Your task to perform on an android device: What's on my calendar tomorrow? Image 0: 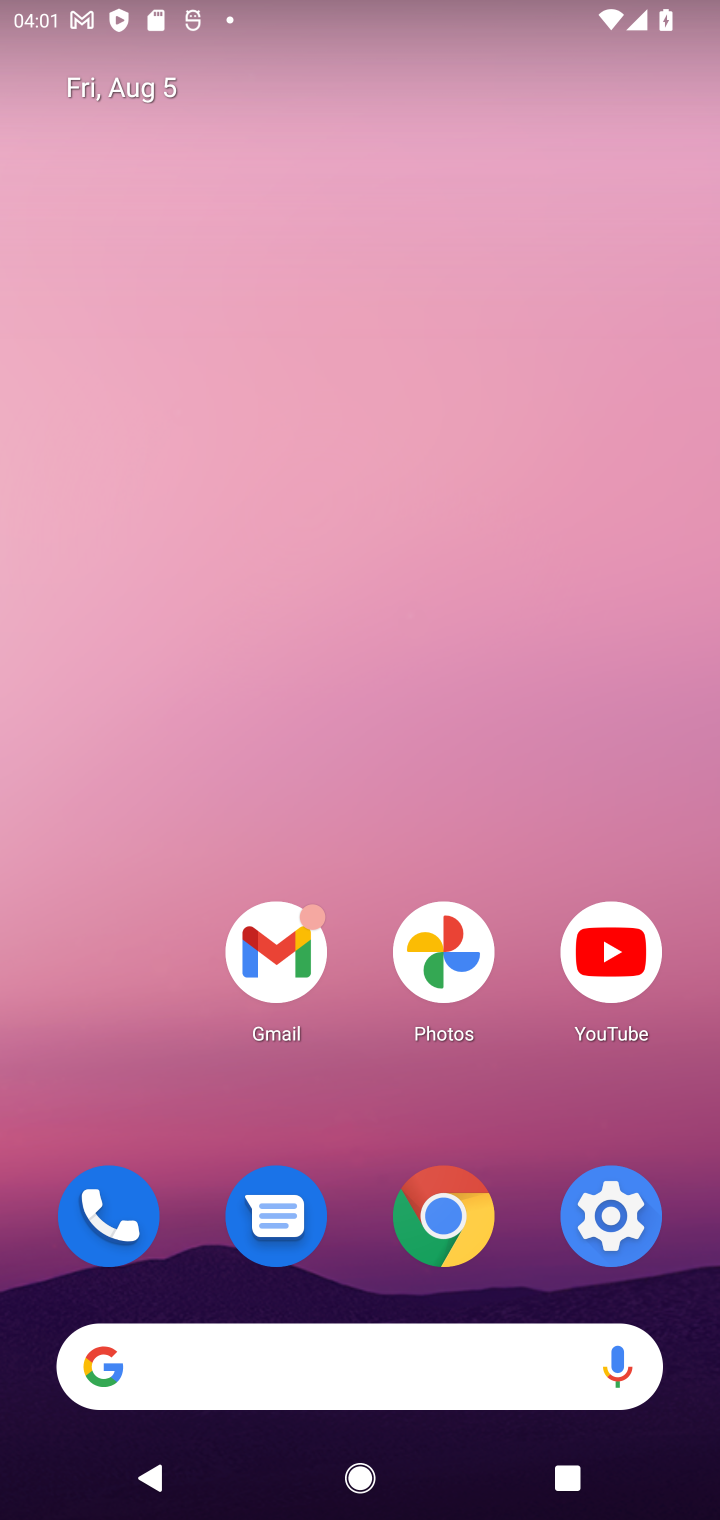
Step 0: drag from (424, 1450) to (689, 299)
Your task to perform on an android device: What's on my calendar tomorrow? Image 1: 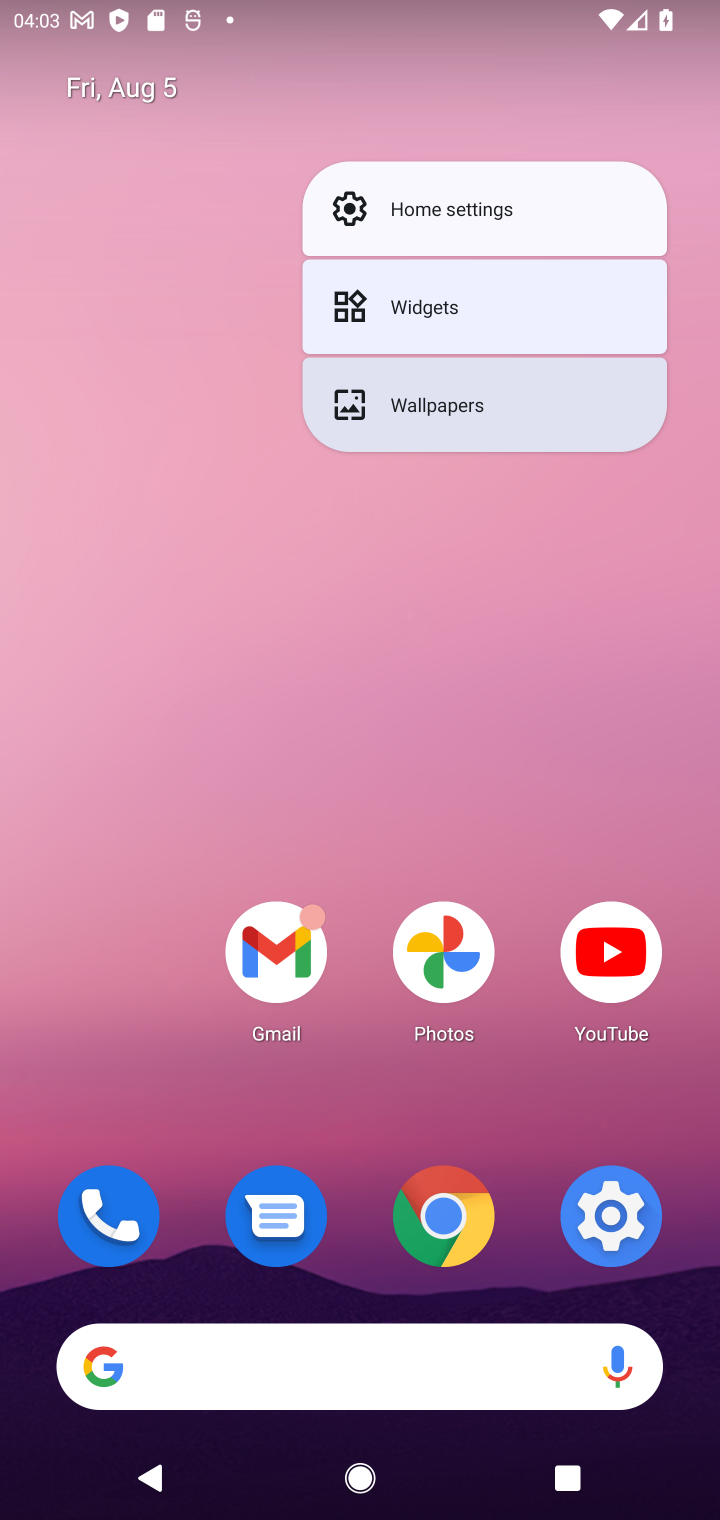
Step 1: drag from (500, 765) to (702, 79)
Your task to perform on an android device: What's on my calendar tomorrow? Image 2: 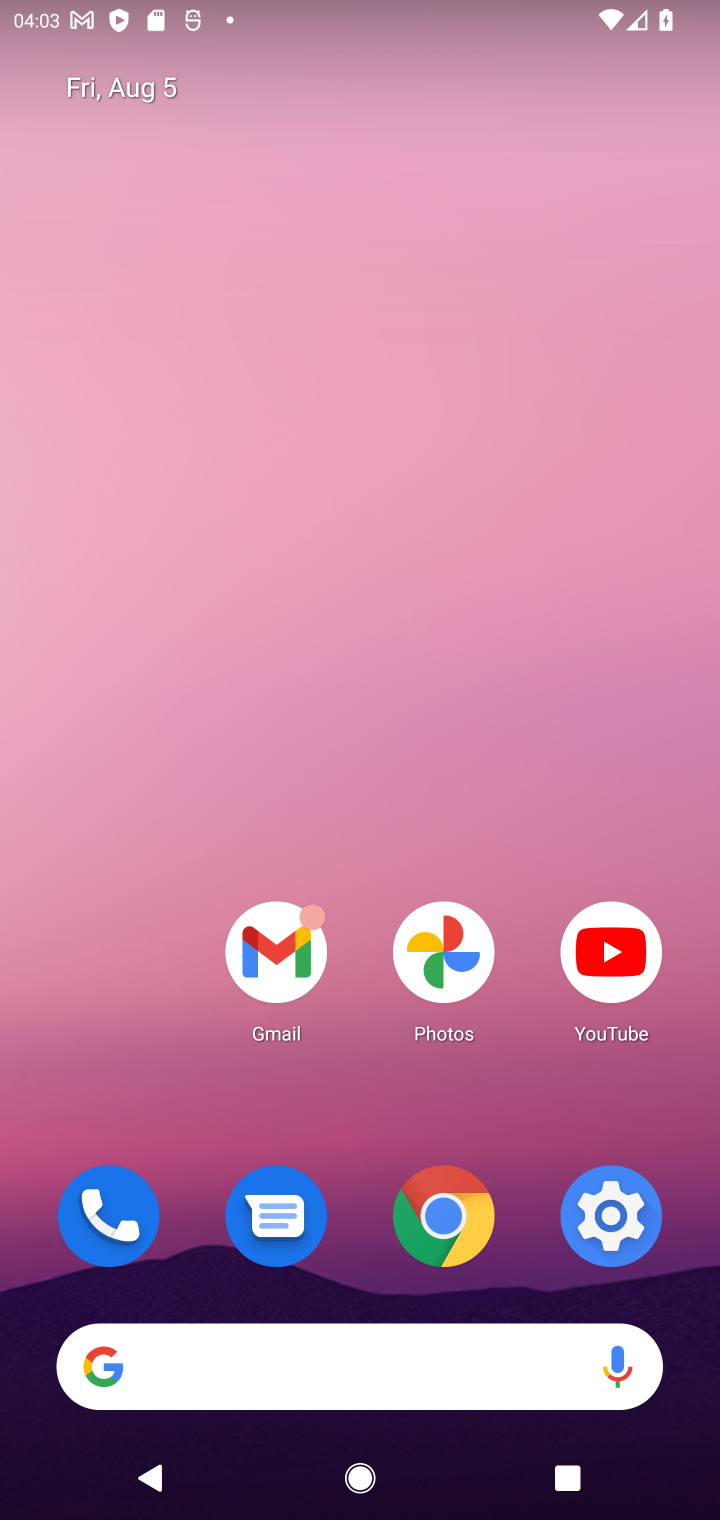
Step 2: click (702, 37)
Your task to perform on an android device: What's on my calendar tomorrow? Image 3: 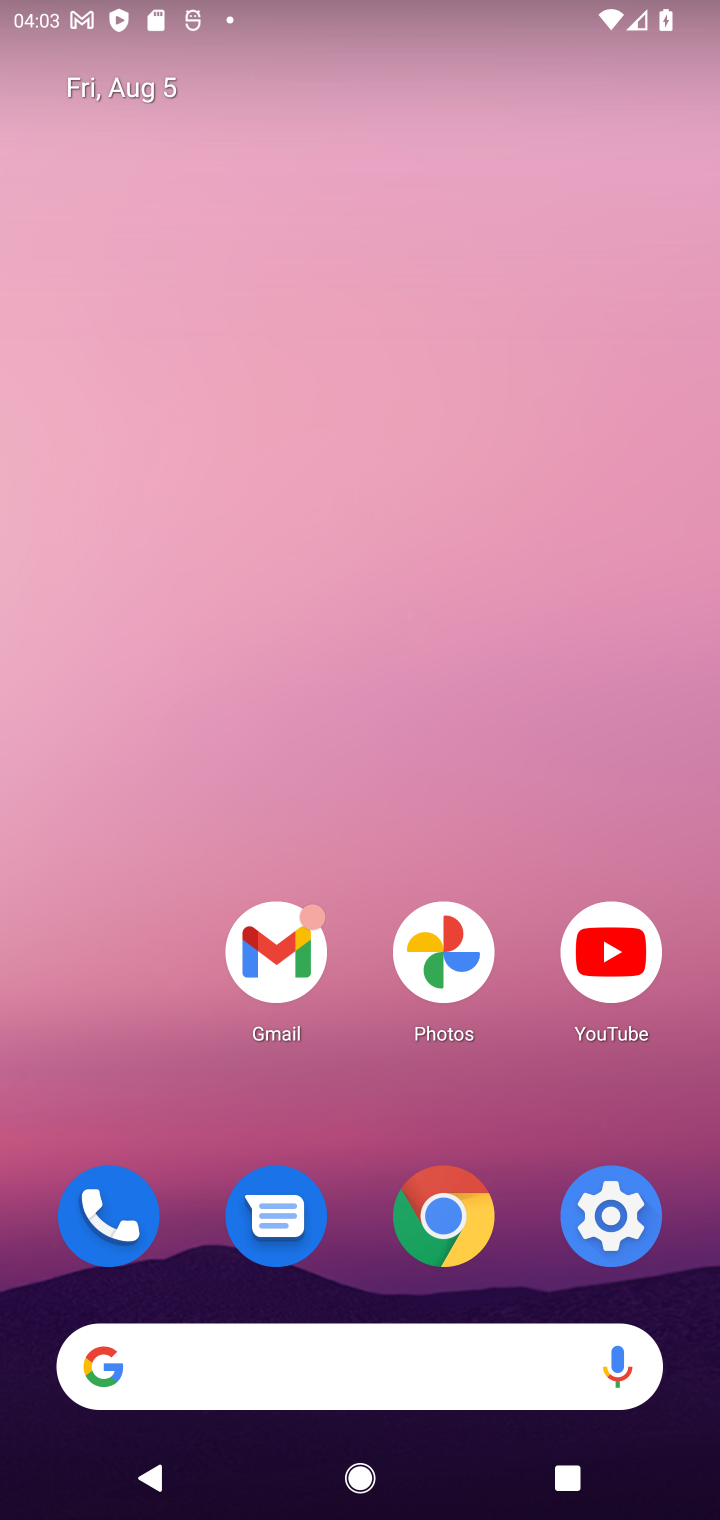
Step 3: drag from (210, 1461) to (580, 389)
Your task to perform on an android device: What's on my calendar tomorrow? Image 4: 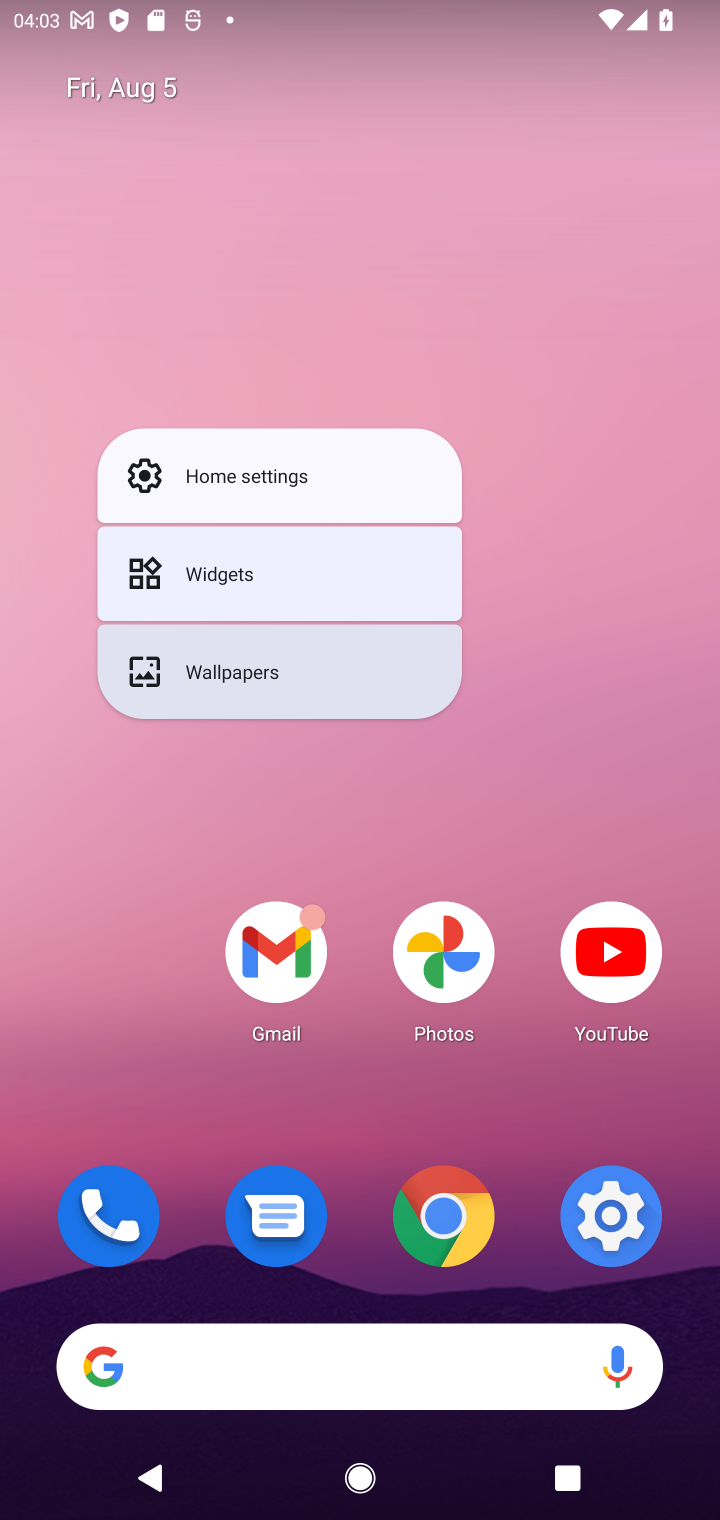
Step 4: drag from (584, 1267) to (687, 425)
Your task to perform on an android device: What's on my calendar tomorrow? Image 5: 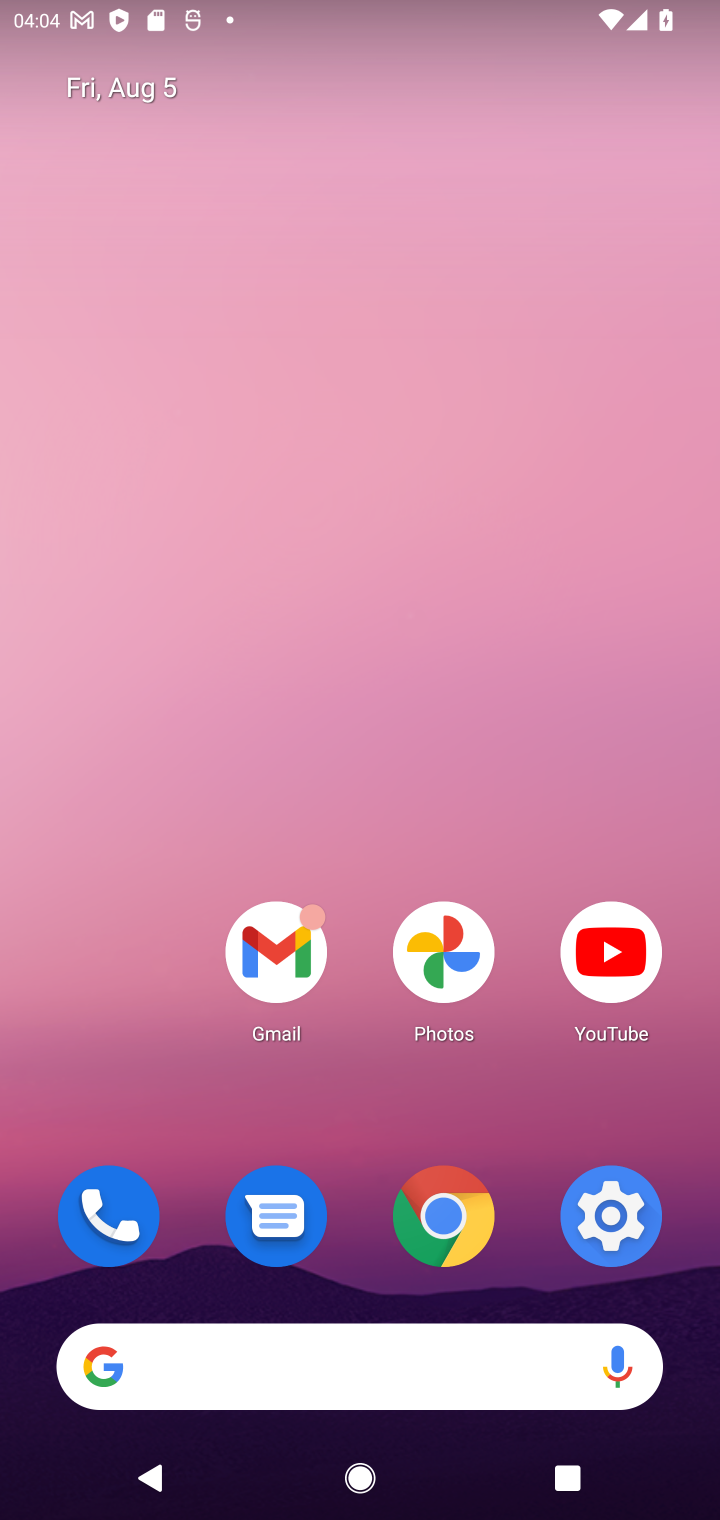
Step 5: drag from (147, 1440) to (76, 1056)
Your task to perform on an android device: What's on my calendar tomorrow? Image 6: 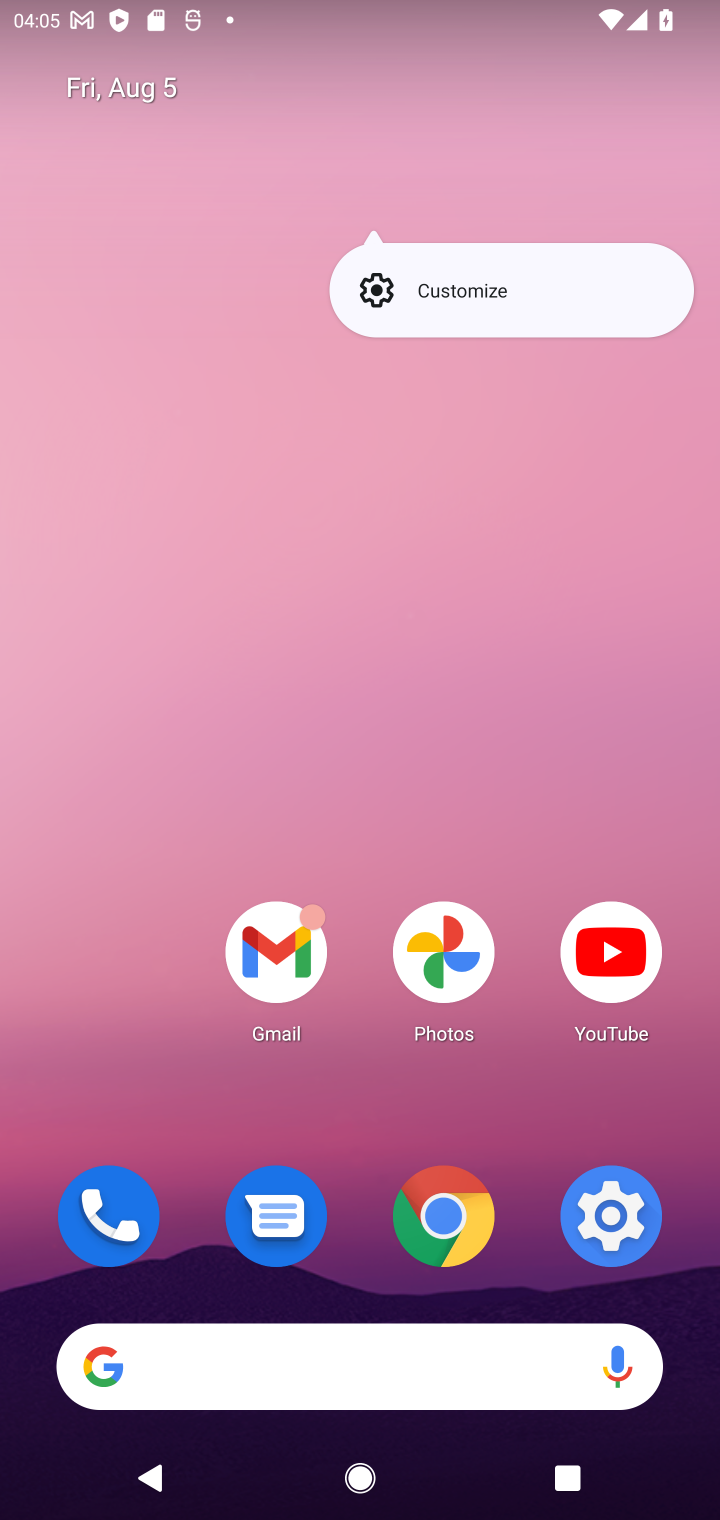
Step 6: drag from (463, 1423) to (611, 145)
Your task to perform on an android device: What's on my calendar tomorrow? Image 7: 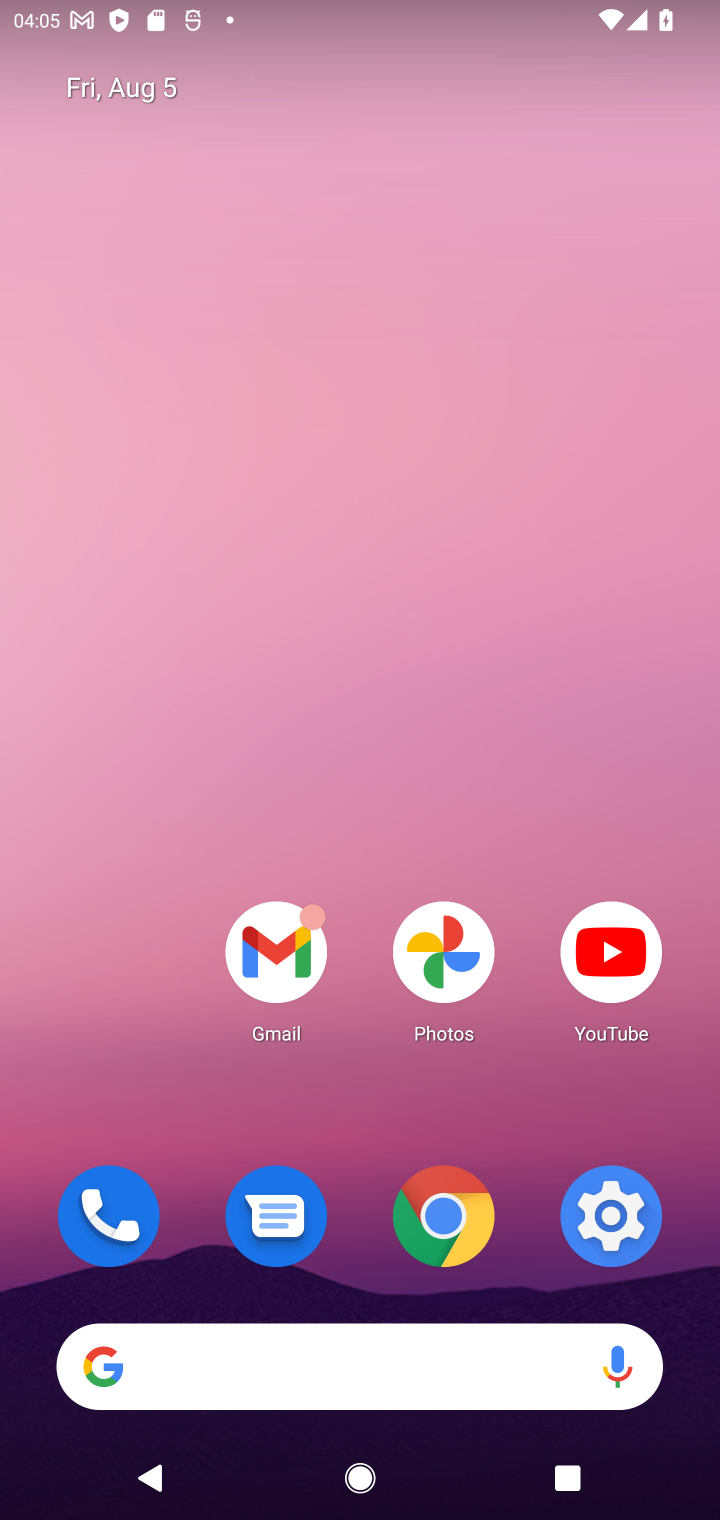
Step 7: drag from (420, 1321) to (553, 280)
Your task to perform on an android device: What's on my calendar tomorrow? Image 8: 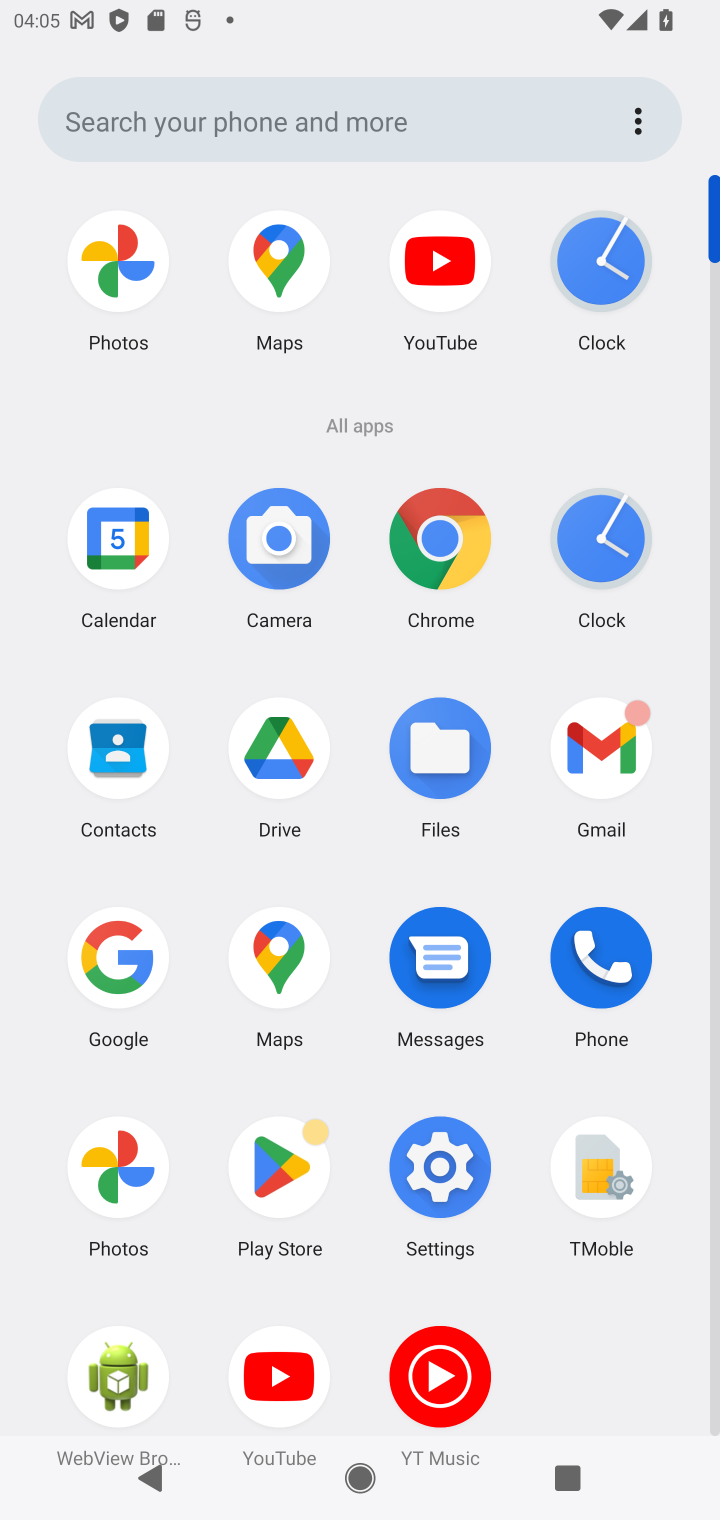
Step 8: click (118, 537)
Your task to perform on an android device: What's on my calendar tomorrow? Image 9: 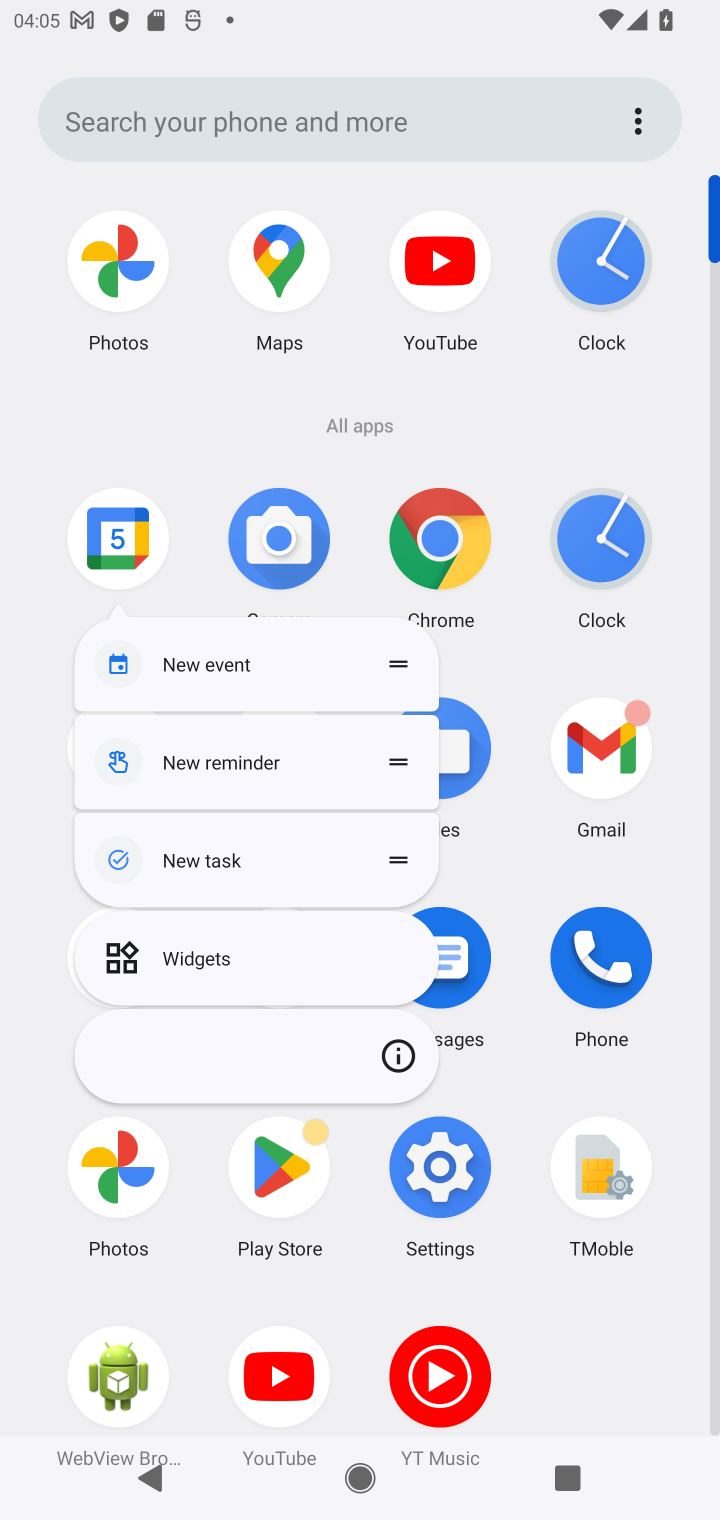
Step 9: click (118, 537)
Your task to perform on an android device: What's on my calendar tomorrow? Image 10: 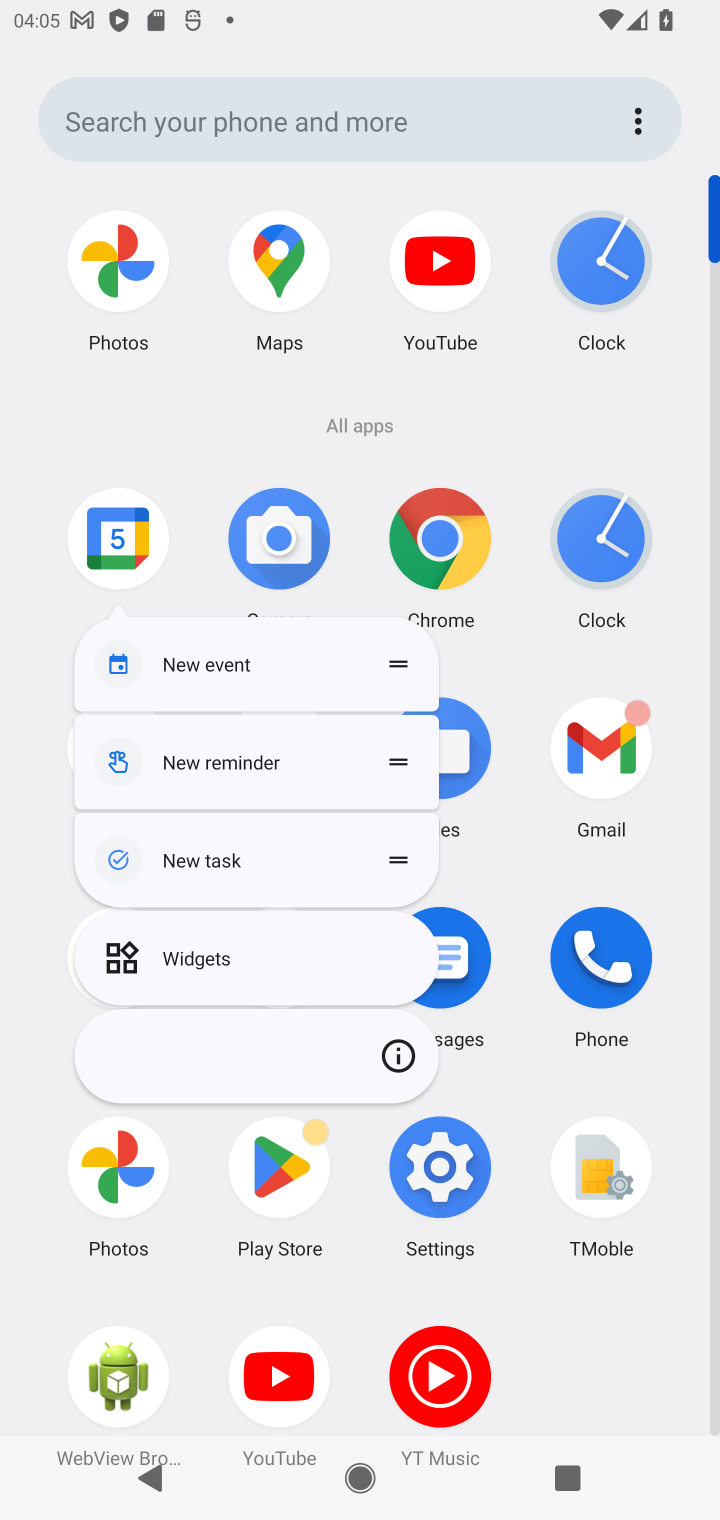
Step 10: click (90, 576)
Your task to perform on an android device: What's on my calendar tomorrow? Image 11: 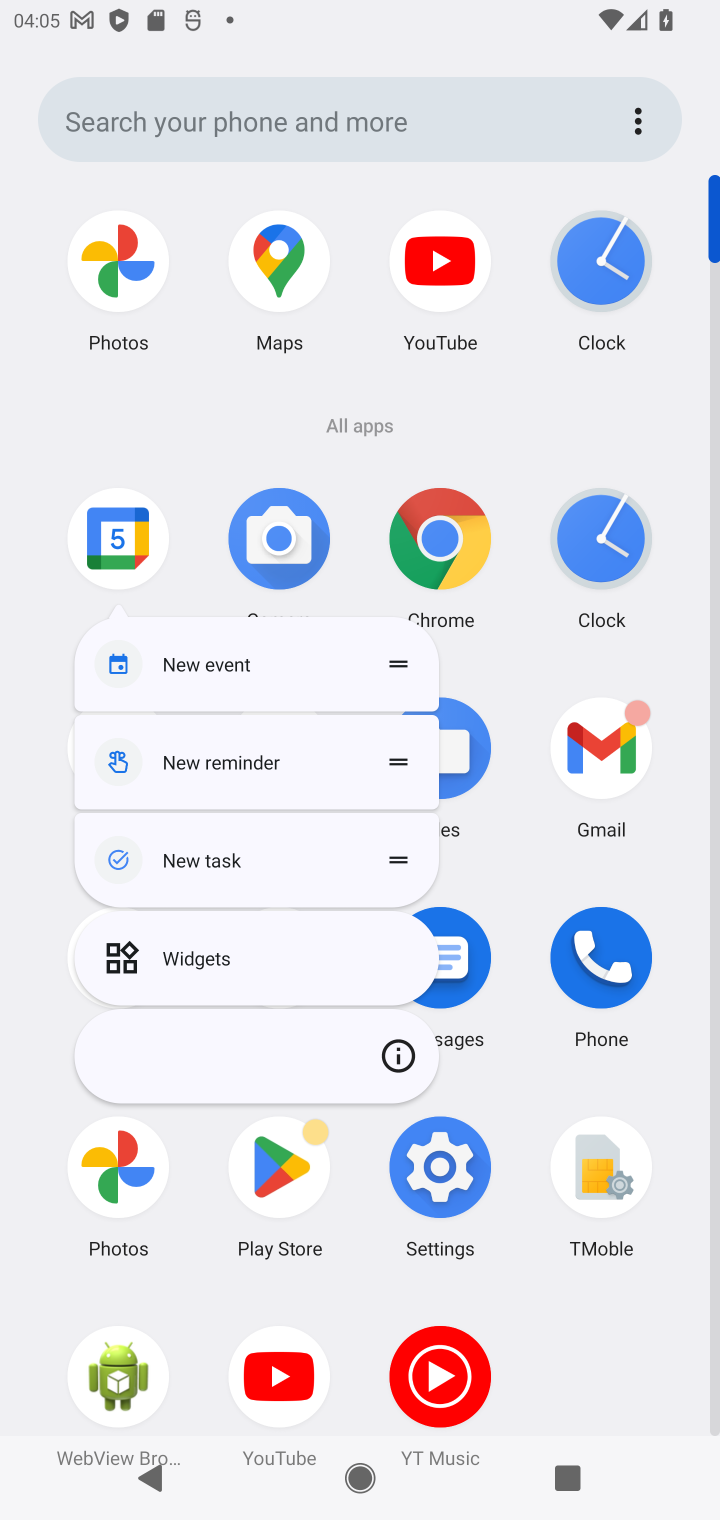
Step 11: click (98, 533)
Your task to perform on an android device: What's on my calendar tomorrow? Image 12: 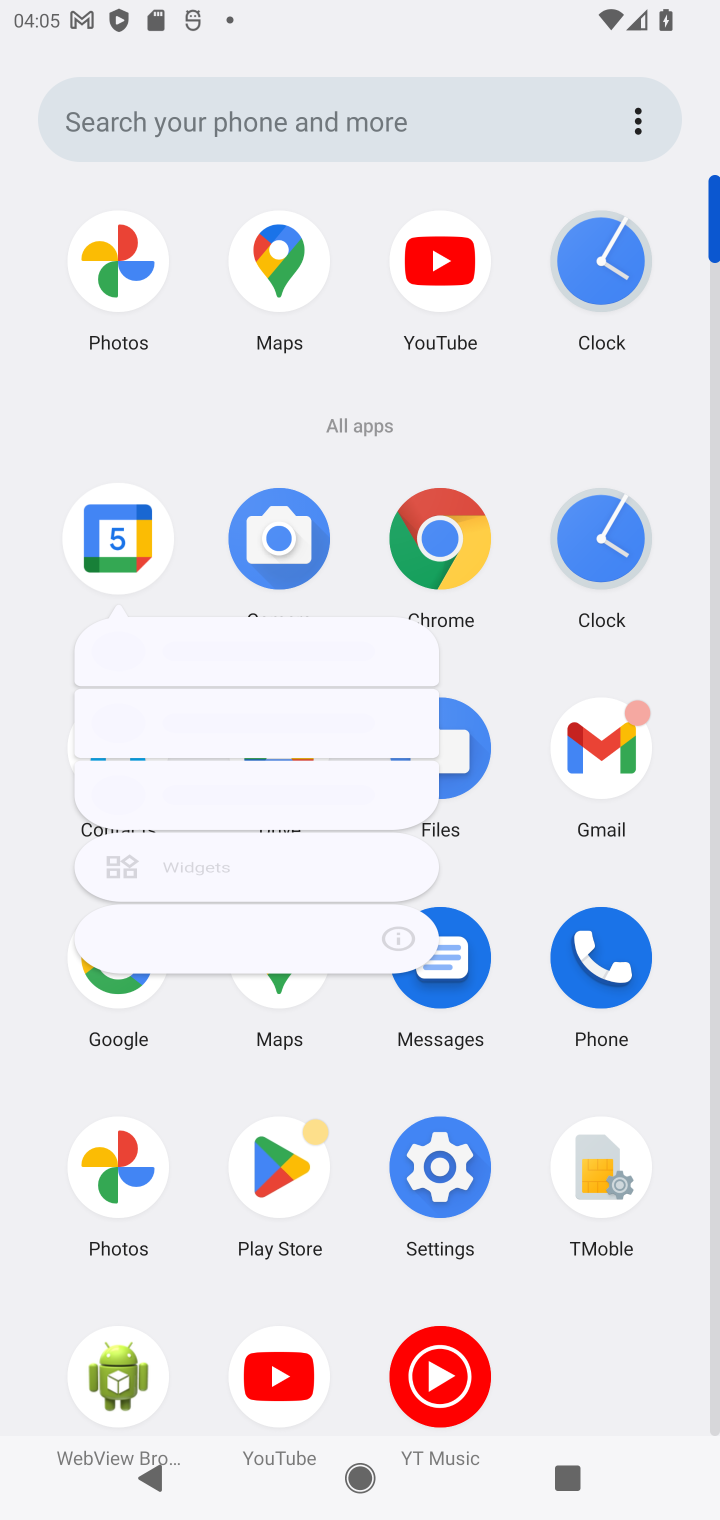
Step 12: click (117, 504)
Your task to perform on an android device: What's on my calendar tomorrow? Image 13: 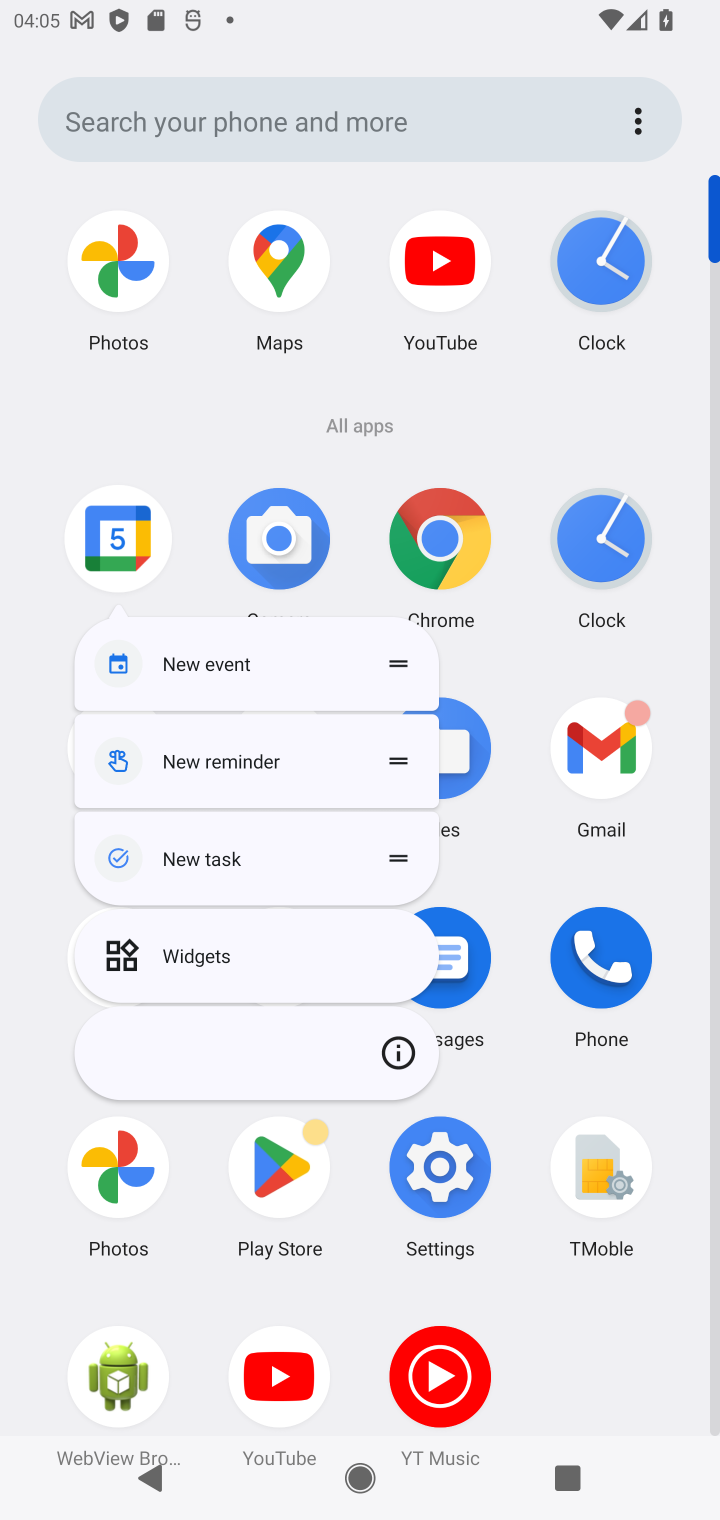
Step 13: click (55, 572)
Your task to perform on an android device: What's on my calendar tomorrow? Image 14: 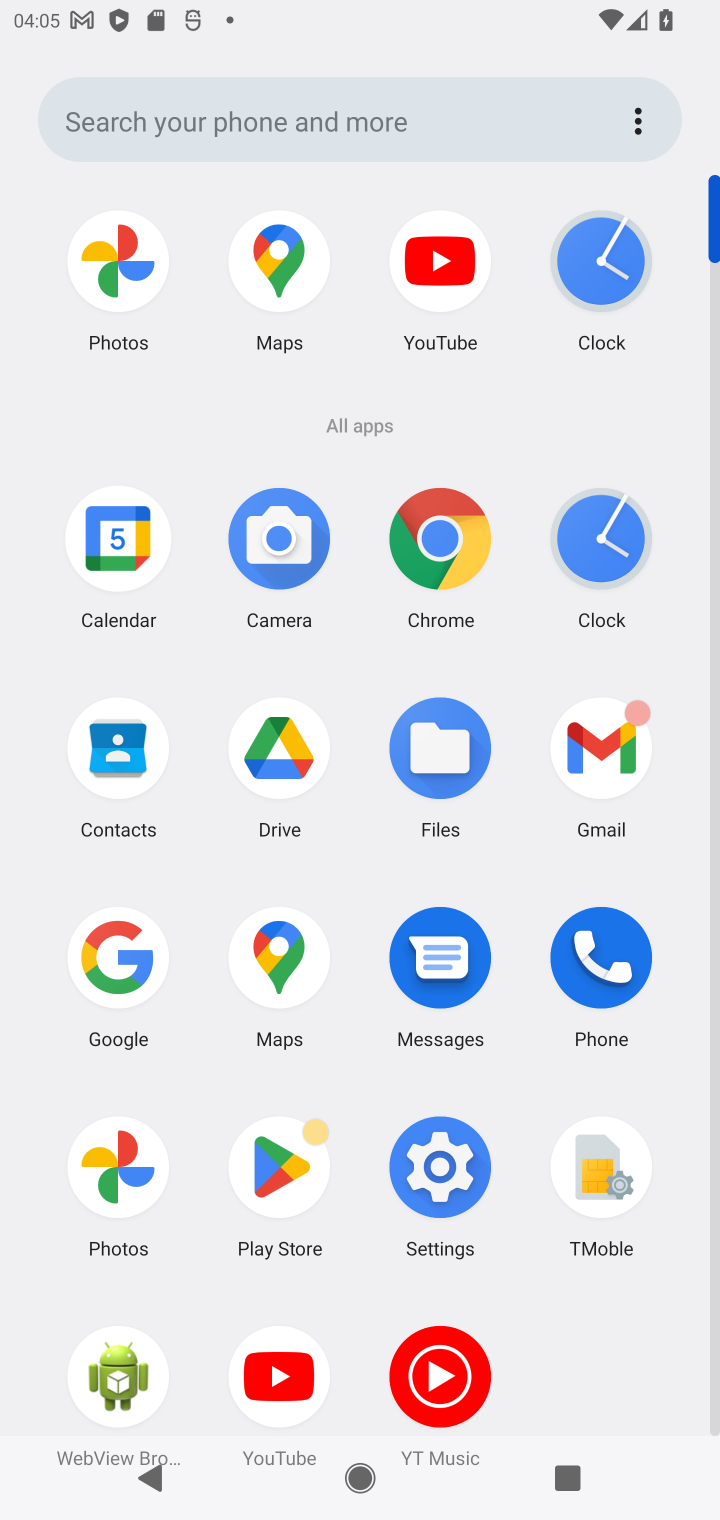
Step 14: click (152, 542)
Your task to perform on an android device: What's on my calendar tomorrow? Image 15: 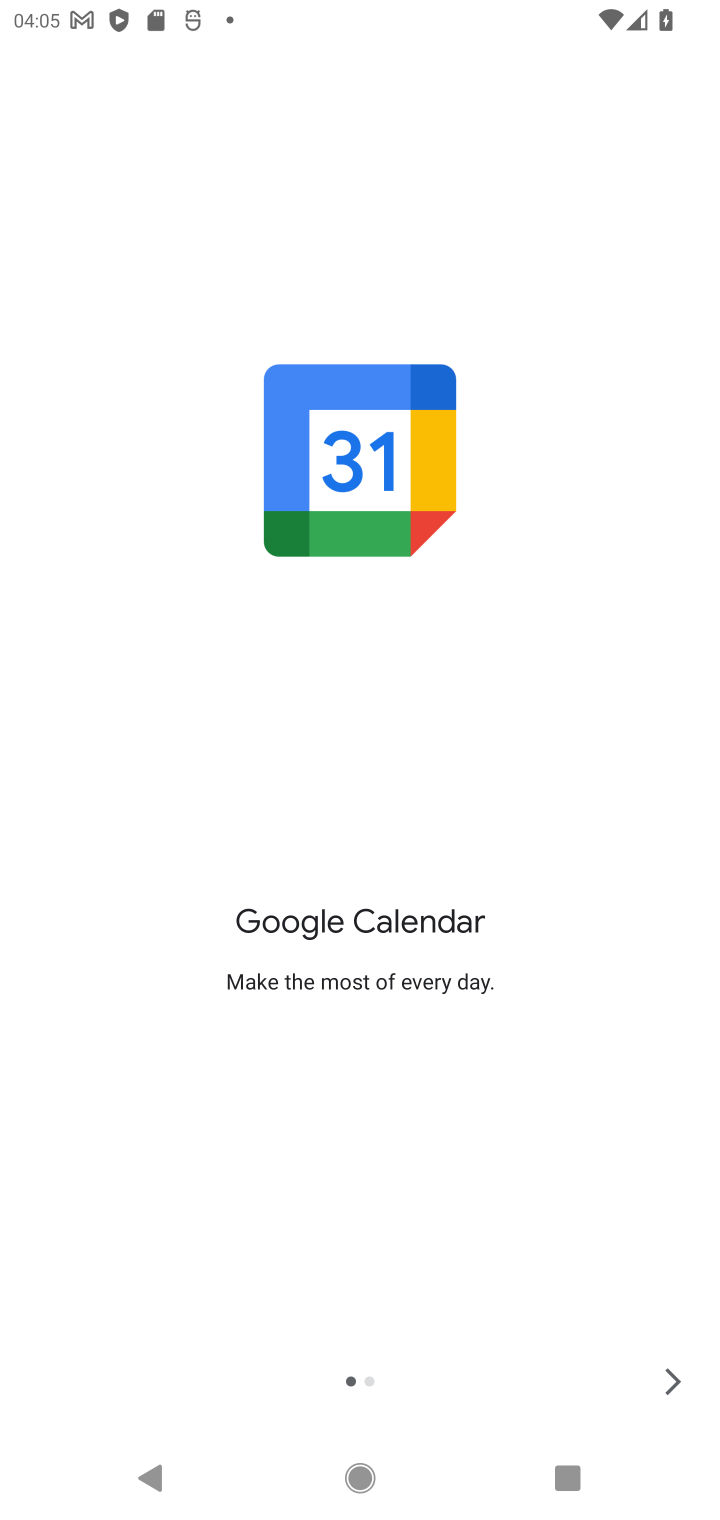
Step 15: click (653, 1376)
Your task to perform on an android device: What's on my calendar tomorrow? Image 16: 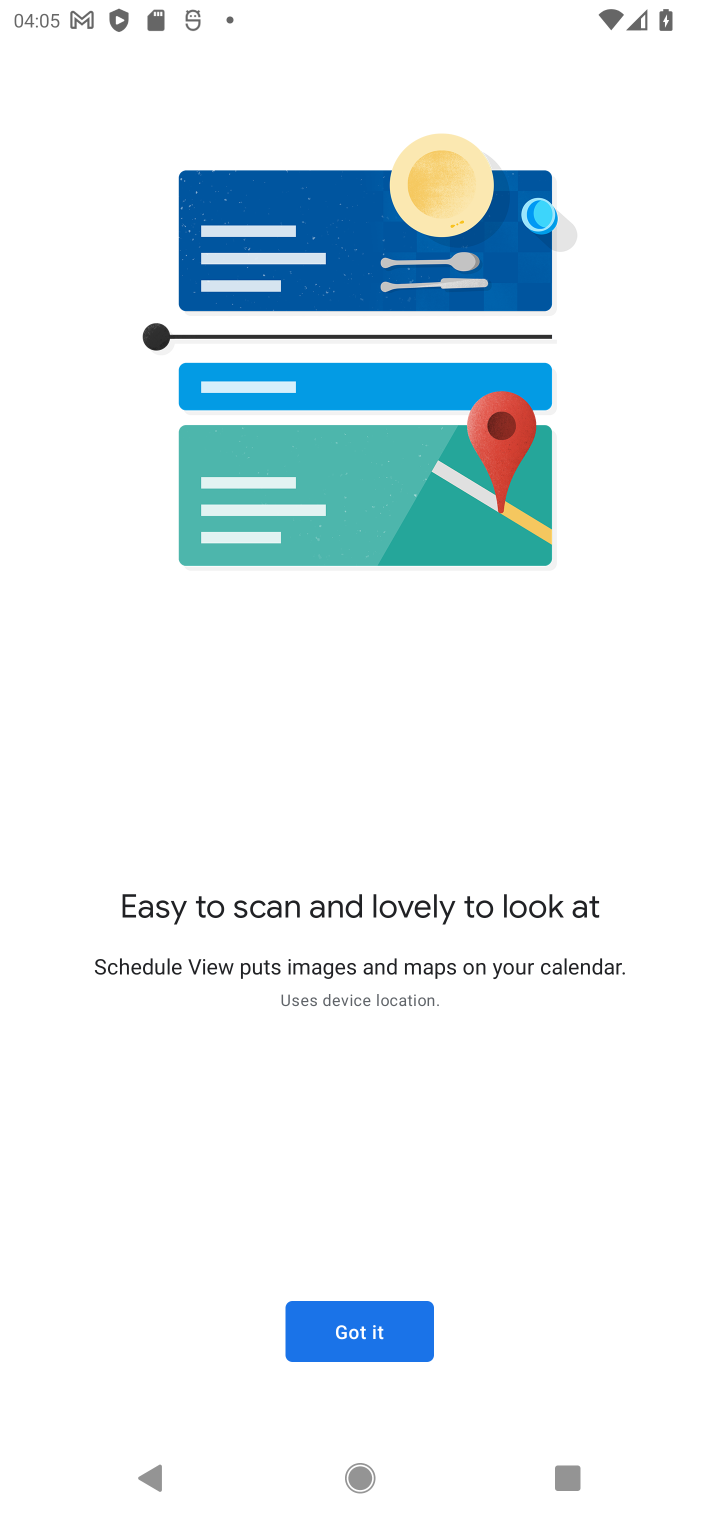
Step 16: click (653, 1365)
Your task to perform on an android device: What's on my calendar tomorrow? Image 17: 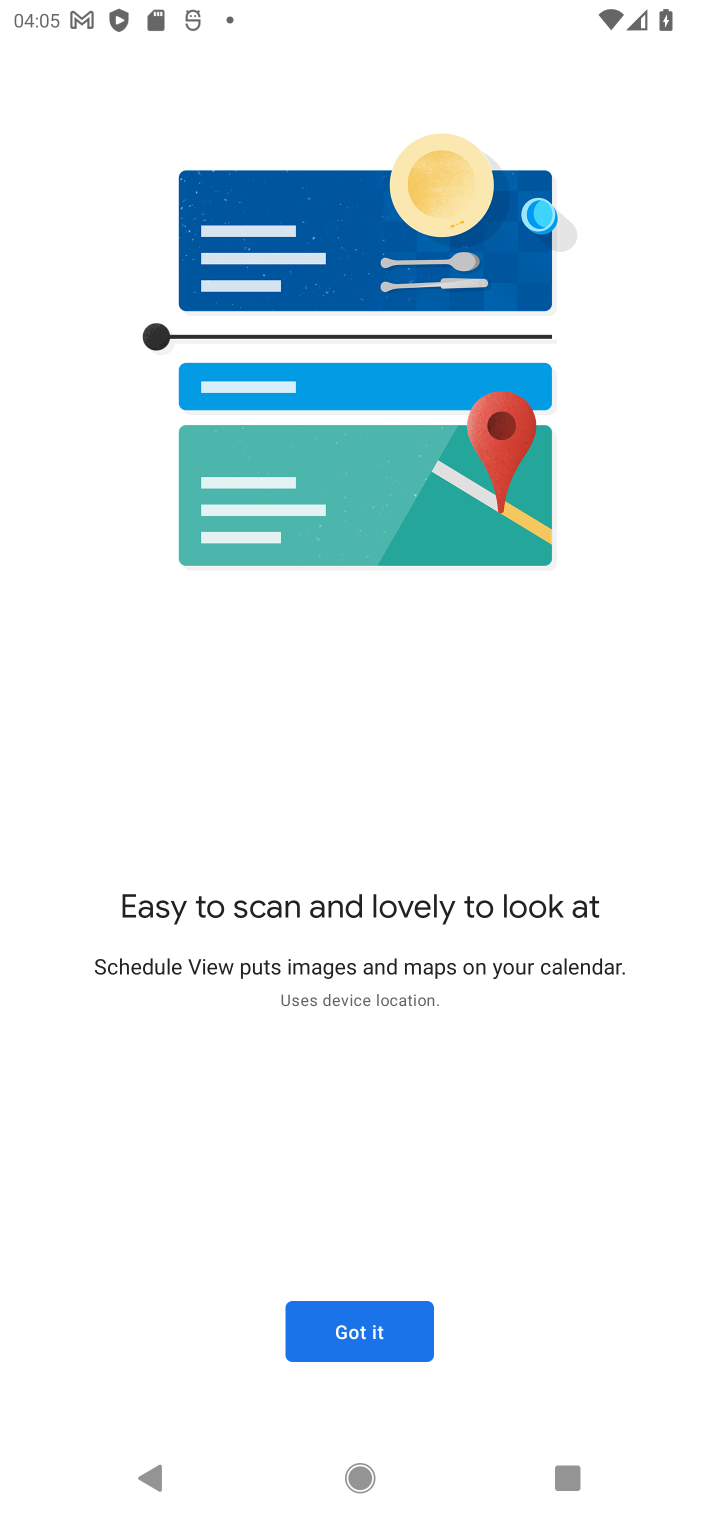
Step 17: click (374, 1338)
Your task to perform on an android device: What's on my calendar tomorrow? Image 18: 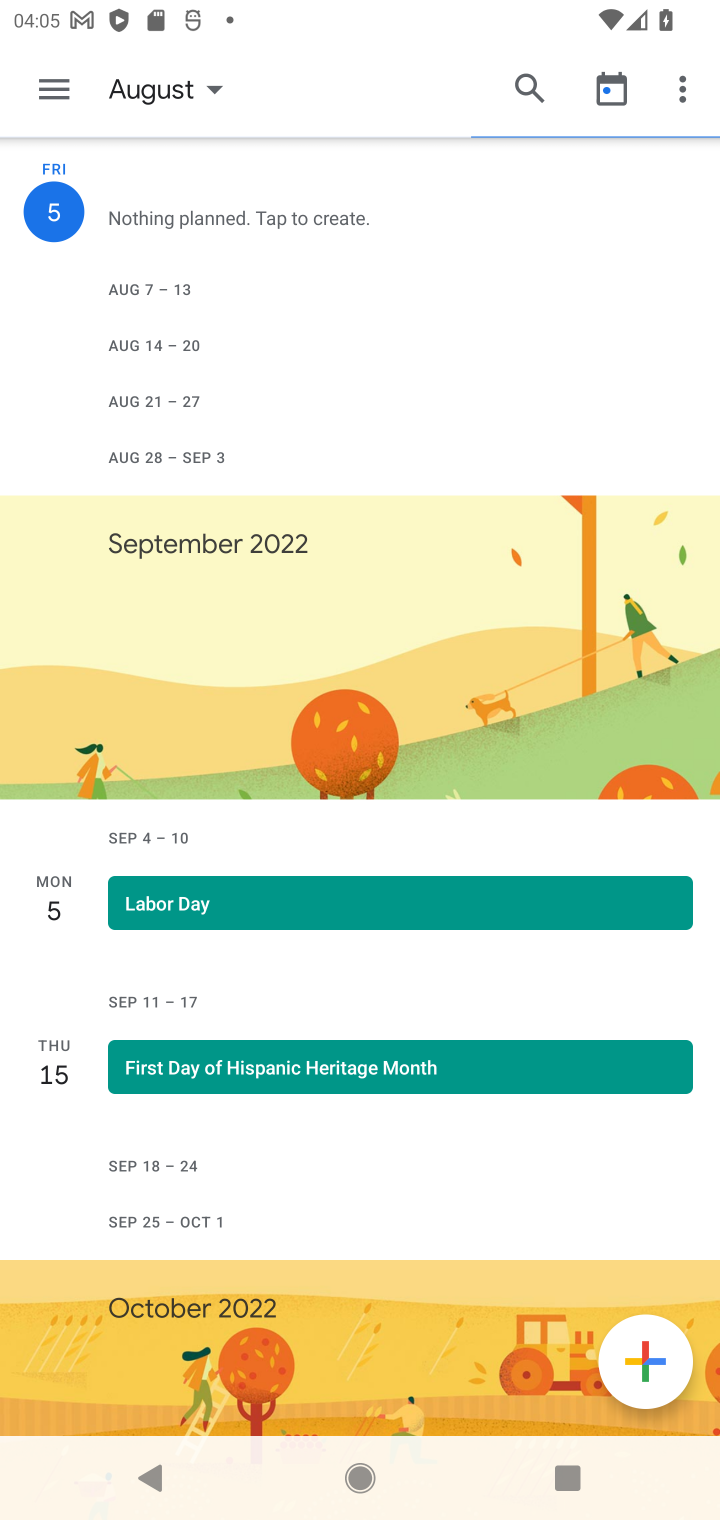
Step 18: click (374, 1338)
Your task to perform on an android device: What's on my calendar tomorrow? Image 19: 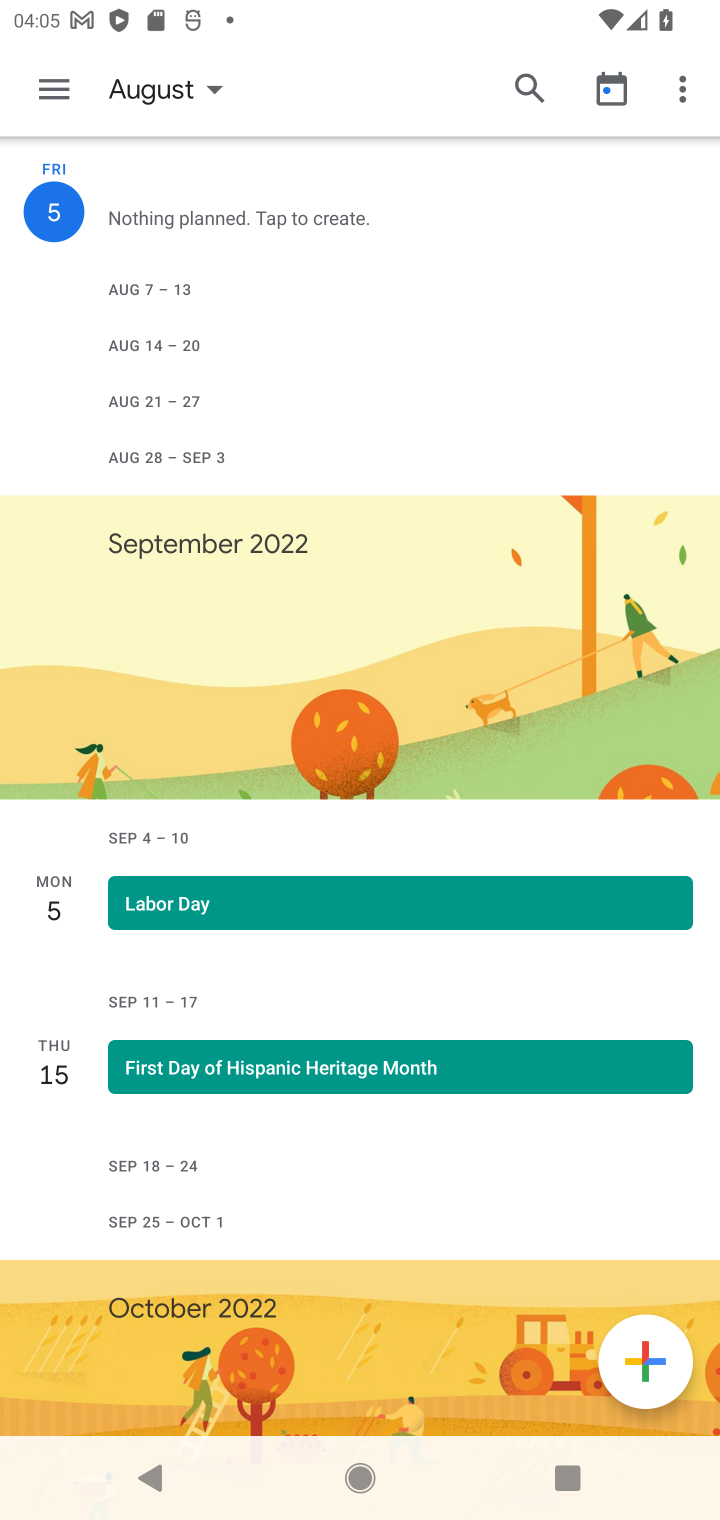
Step 19: task complete